Your task to perform on an android device: toggle show notifications on the lock screen Image 0: 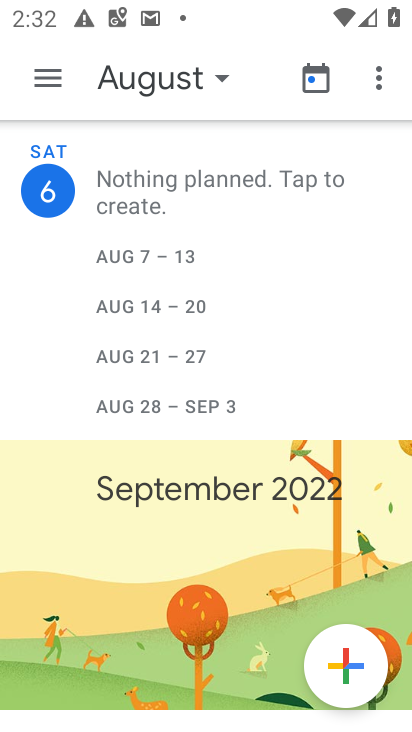
Step 0: press home button
Your task to perform on an android device: toggle show notifications on the lock screen Image 1: 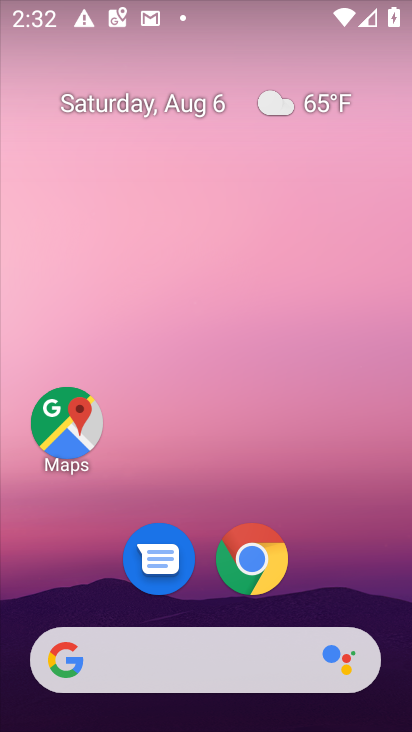
Step 1: drag from (210, 481) to (243, 179)
Your task to perform on an android device: toggle show notifications on the lock screen Image 2: 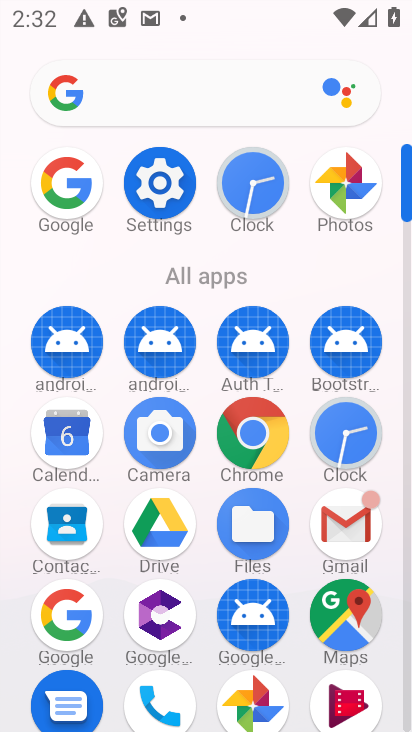
Step 2: click (156, 193)
Your task to perform on an android device: toggle show notifications on the lock screen Image 3: 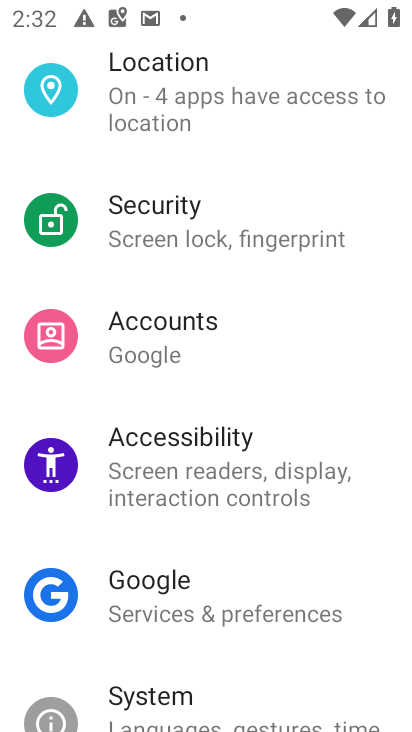
Step 3: drag from (208, 229) to (230, 492)
Your task to perform on an android device: toggle show notifications on the lock screen Image 4: 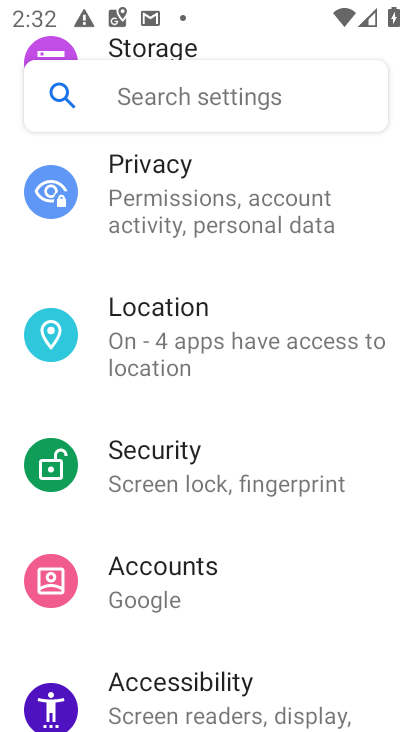
Step 4: drag from (190, 253) to (194, 564)
Your task to perform on an android device: toggle show notifications on the lock screen Image 5: 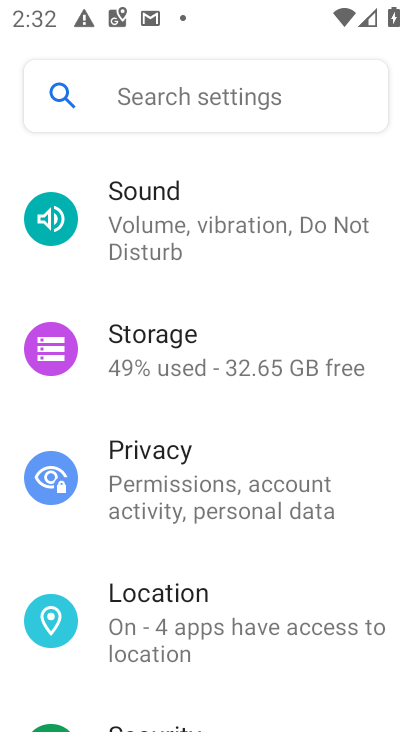
Step 5: drag from (236, 286) to (269, 571)
Your task to perform on an android device: toggle show notifications on the lock screen Image 6: 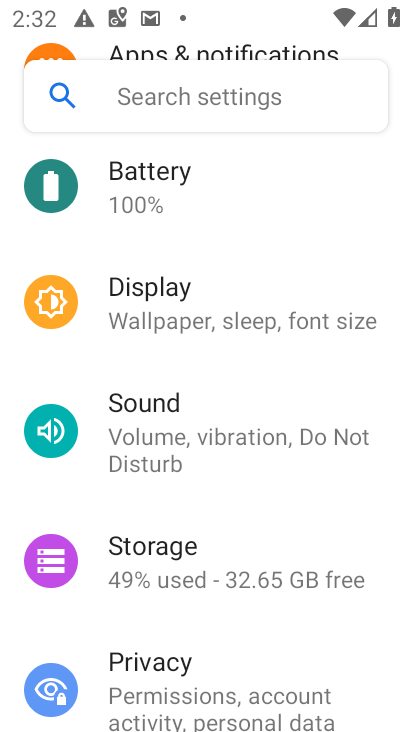
Step 6: drag from (215, 296) to (239, 580)
Your task to perform on an android device: toggle show notifications on the lock screen Image 7: 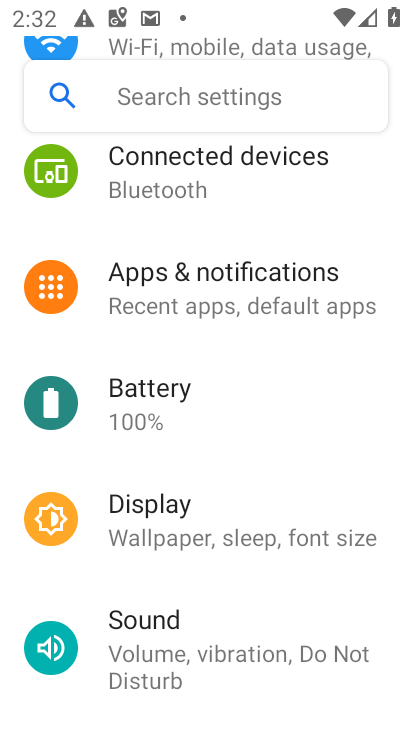
Step 7: click (221, 312)
Your task to perform on an android device: toggle show notifications on the lock screen Image 8: 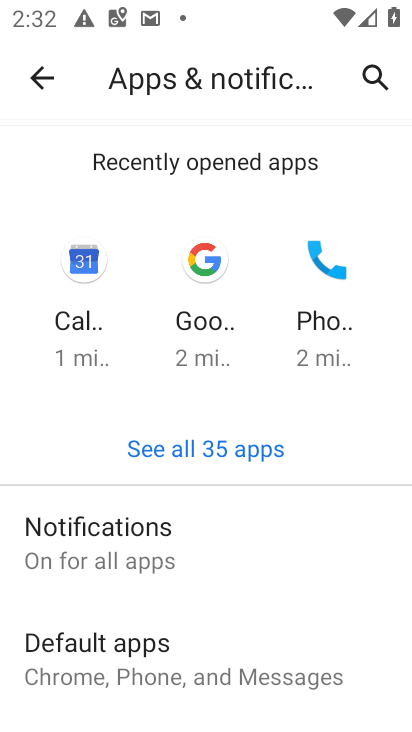
Step 8: click (188, 545)
Your task to perform on an android device: toggle show notifications on the lock screen Image 9: 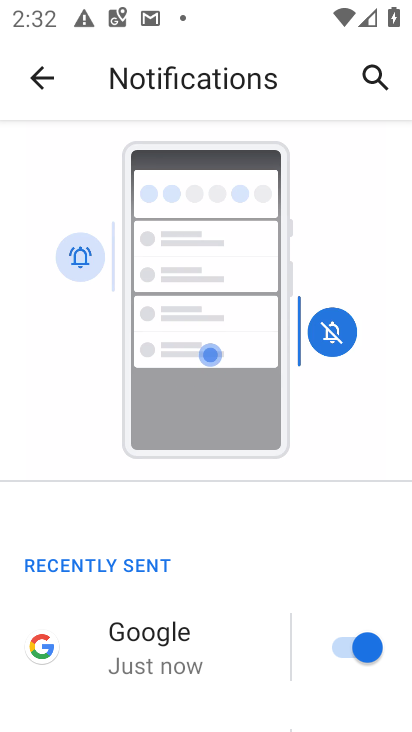
Step 9: drag from (207, 669) to (233, 250)
Your task to perform on an android device: toggle show notifications on the lock screen Image 10: 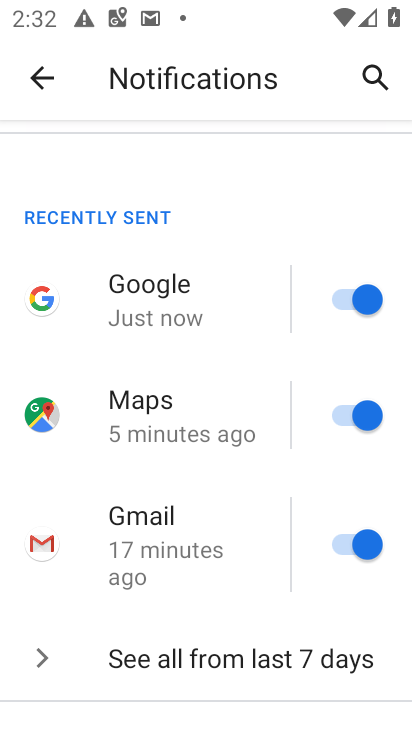
Step 10: drag from (254, 598) to (250, 270)
Your task to perform on an android device: toggle show notifications on the lock screen Image 11: 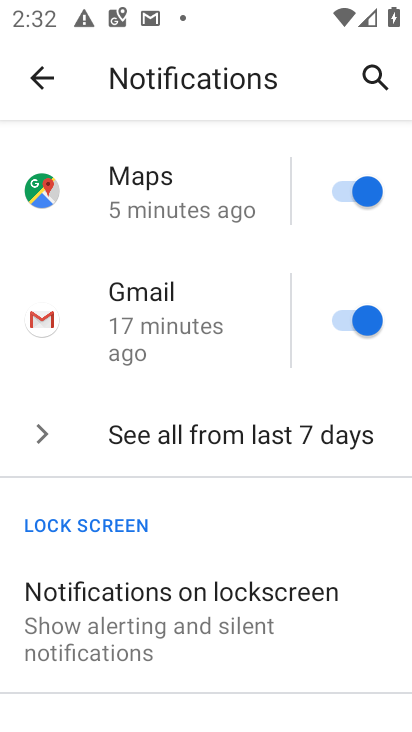
Step 11: click (249, 624)
Your task to perform on an android device: toggle show notifications on the lock screen Image 12: 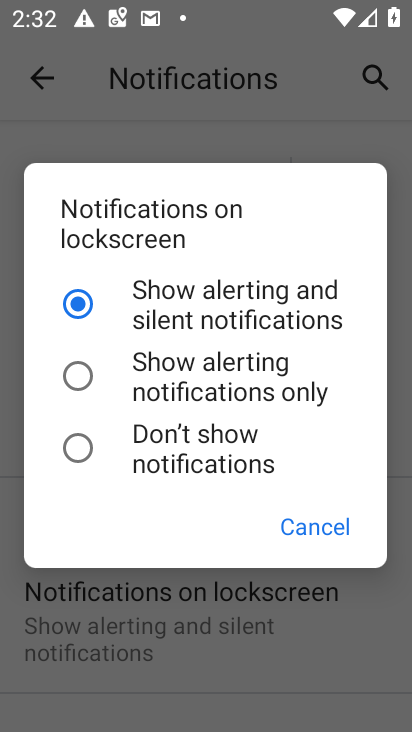
Step 12: click (158, 443)
Your task to perform on an android device: toggle show notifications on the lock screen Image 13: 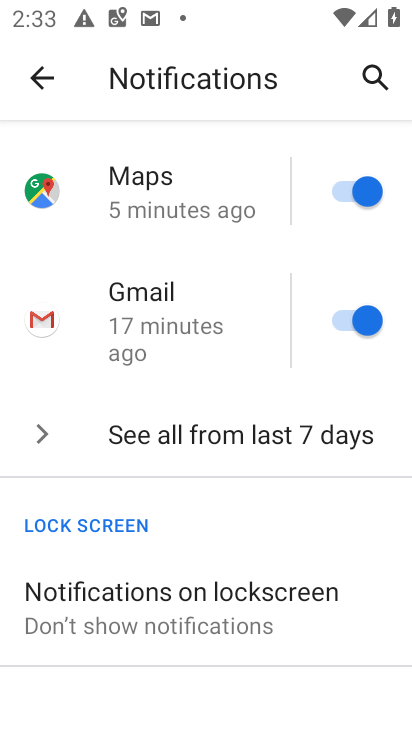
Step 13: task complete